Your task to perform on an android device: move a message to another label in the gmail app Image 0: 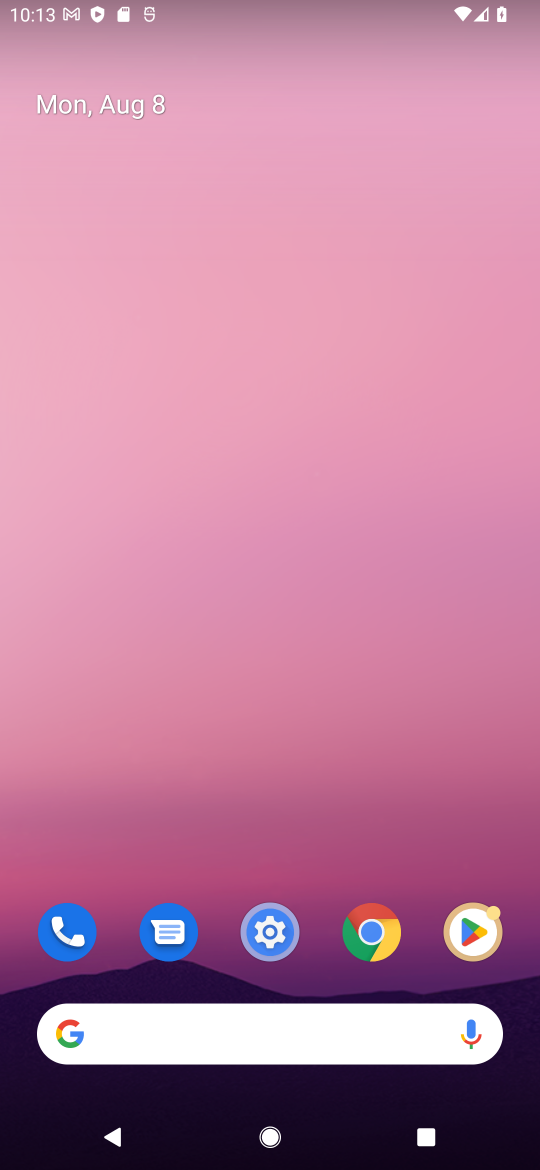
Step 0: drag from (303, 898) to (273, 185)
Your task to perform on an android device: move a message to another label in the gmail app Image 1: 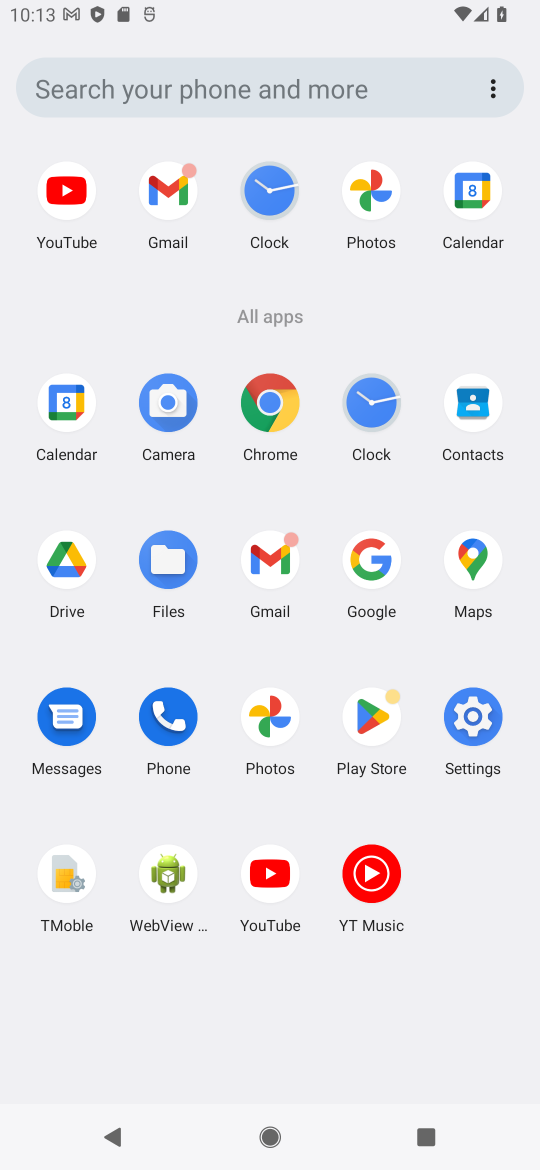
Step 1: click (165, 195)
Your task to perform on an android device: move a message to another label in the gmail app Image 2: 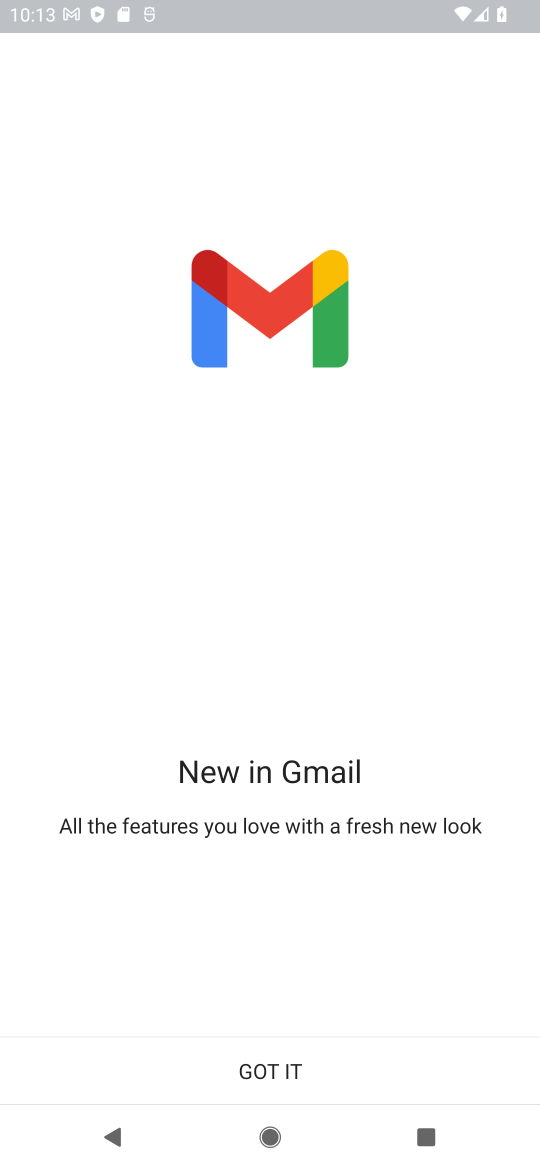
Step 2: click (198, 1075)
Your task to perform on an android device: move a message to another label in the gmail app Image 3: 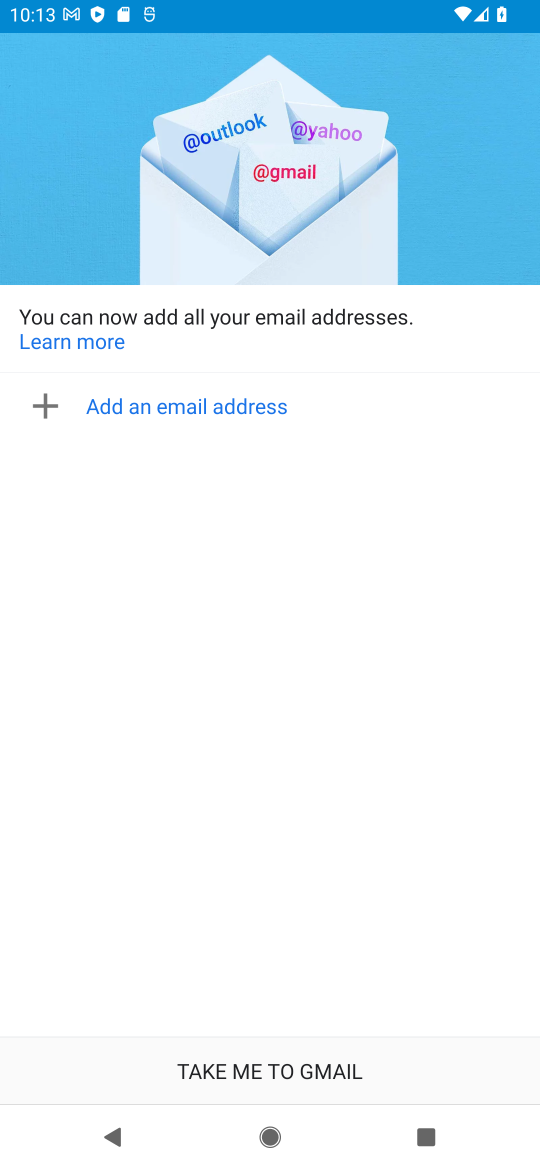
Step 3: click (198, 1075)
Your task to perform on an android device: move a message to another label in the gmail app Image 4: 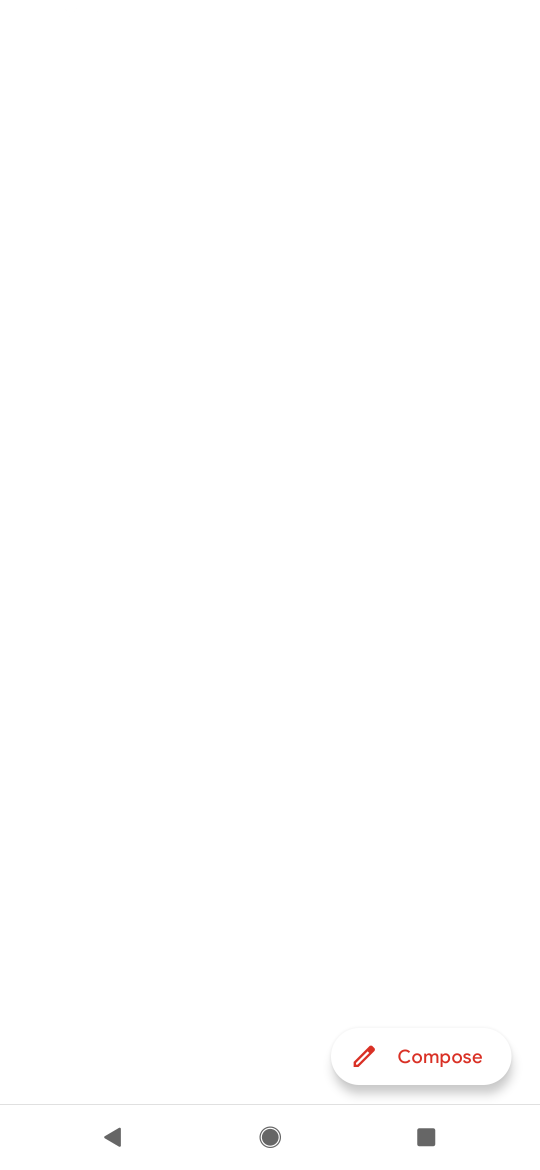
Step 4: click (198, 1075)
Your task to perform on an android device: move a message to another label in the gmail app Image 5: 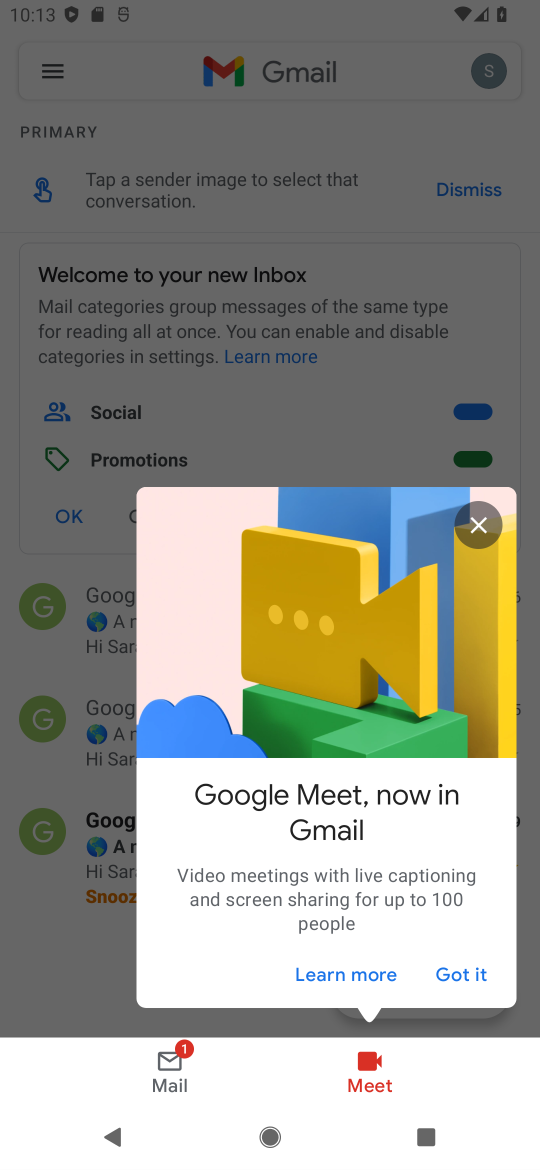
Step 5: click (459, 985)
Your task to perform on an android device: move a message to another label in the gmail app Image 6: 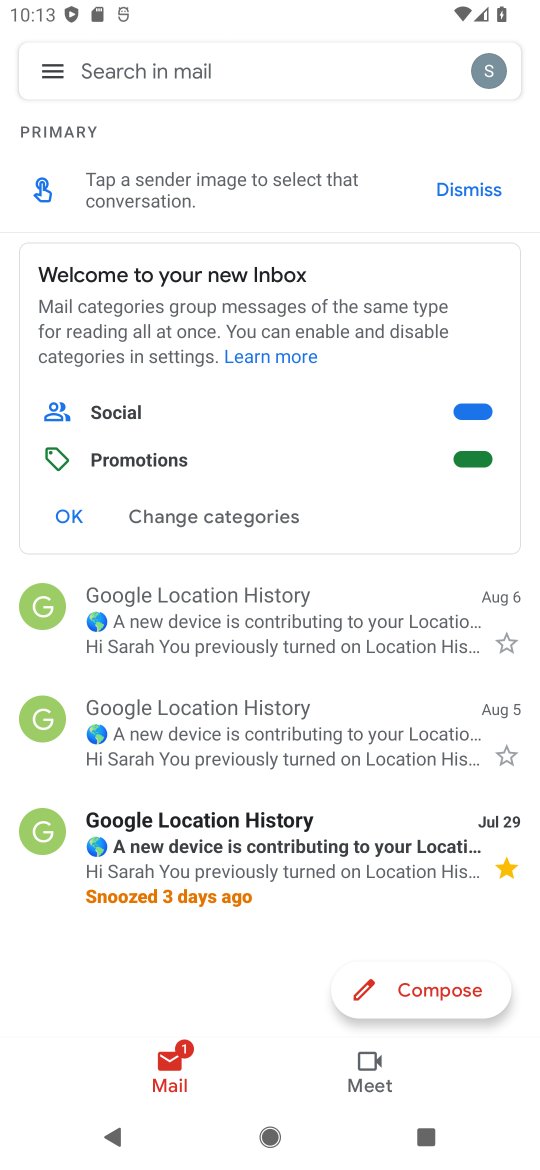
Step 6: click (40, 618)
Your task to perform on an android device: move a message to another label in the gmail app Image 7: 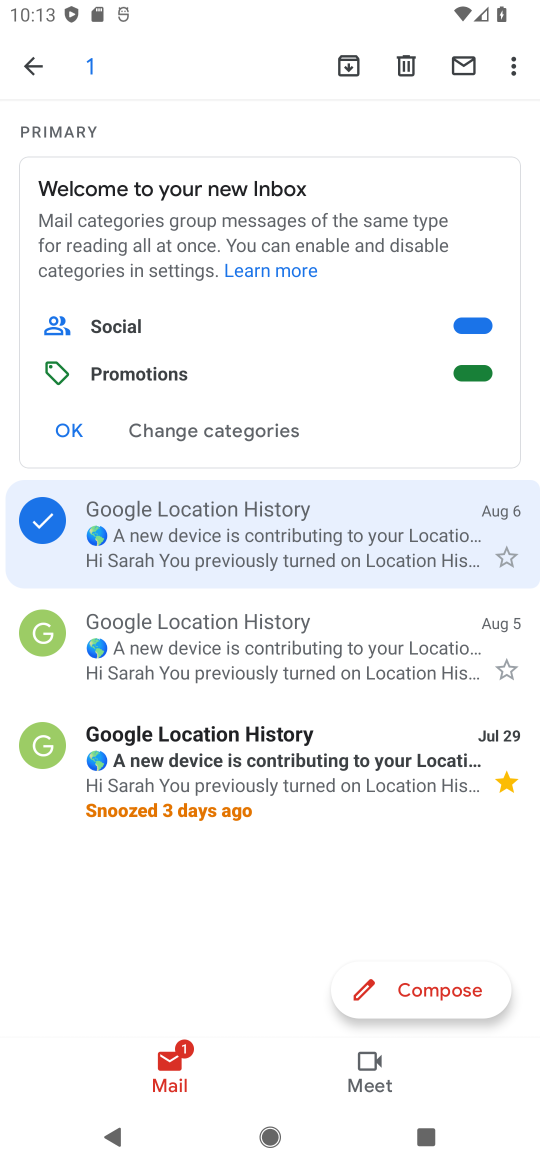
Step 7: click (521, 63)
Your task to perform on an android device: move a message to another label in the gmail app Image 8: 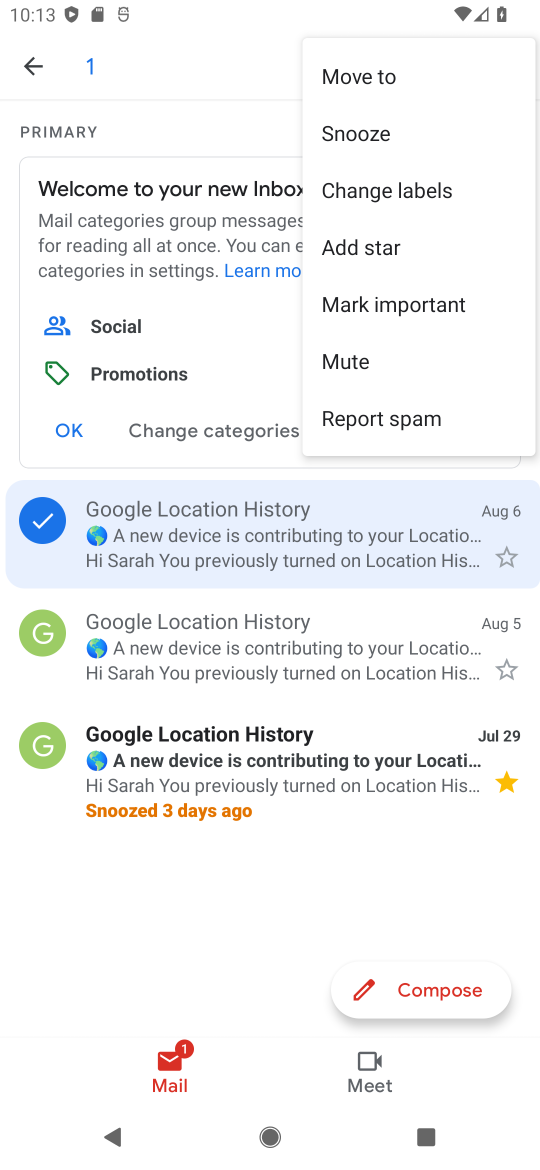
Step 8: click (384, 73)
Your task to perform on an android device: move a message to another label in the gmail app Image 9: 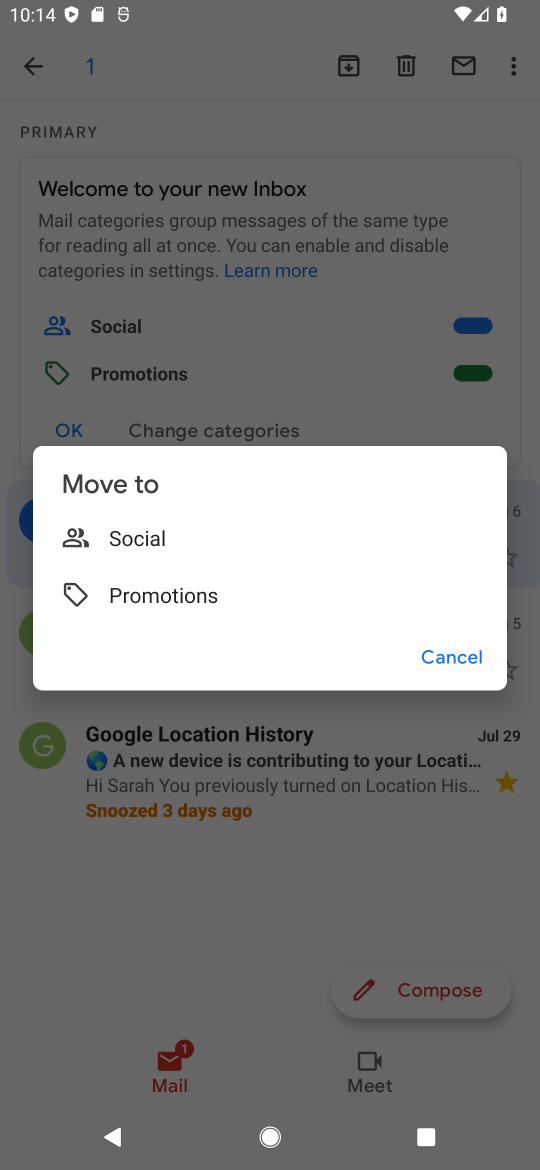
Step 9: click (187, 596)
Your task to perform on an android device: move a message to another label in the gmail app Image 10: 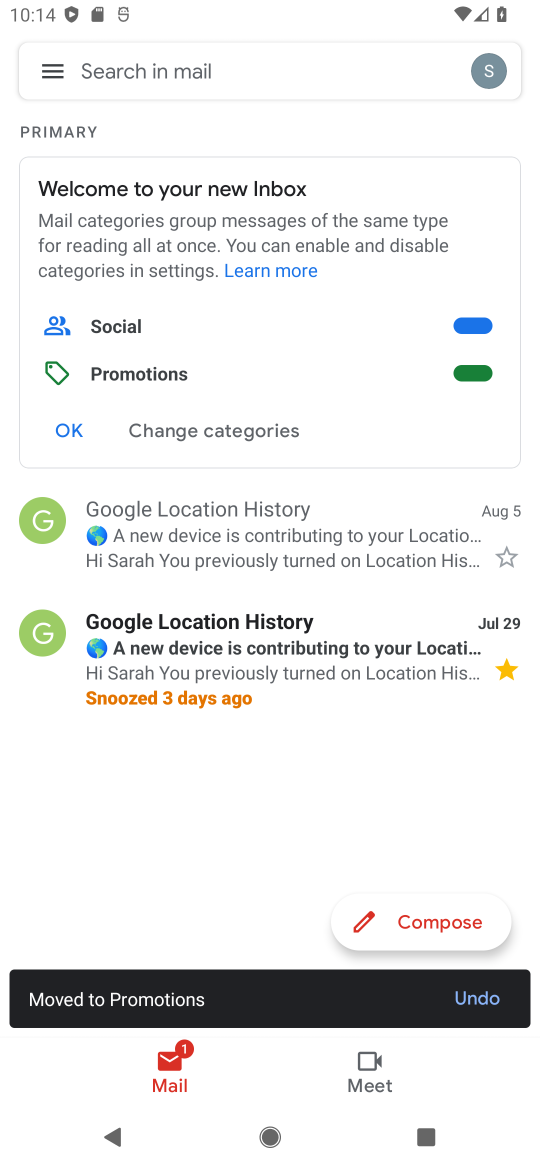
Step 10: task complete